Your task to perform on an android device: check google app version Image 0: 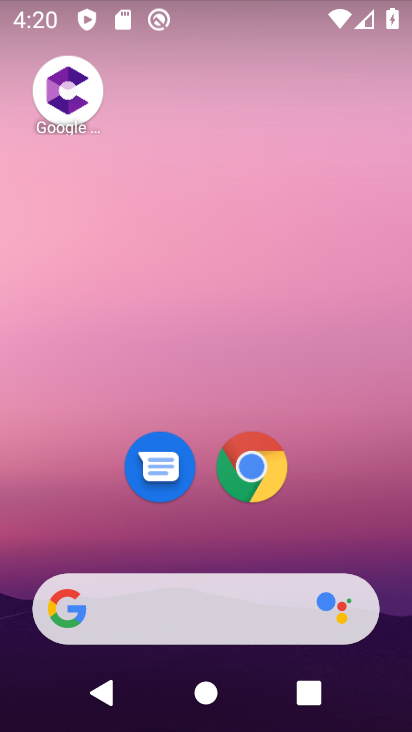
Step 0: click (249, 468)
Your task to perform on an android device: check google app version Image 1: 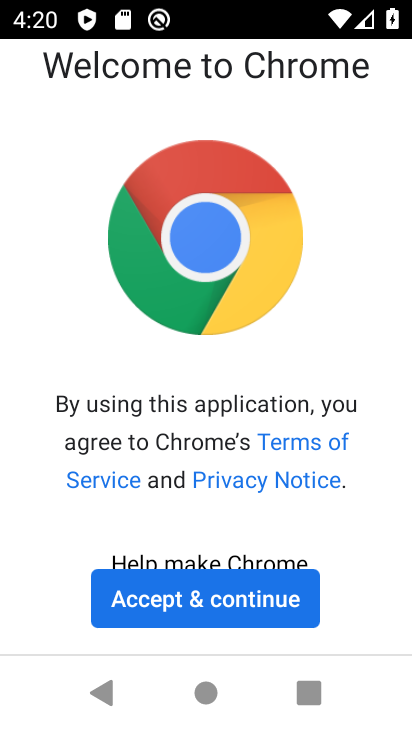
Step 1: click (189, 603)
Your task to perform on an android device: check google app version Image 2: 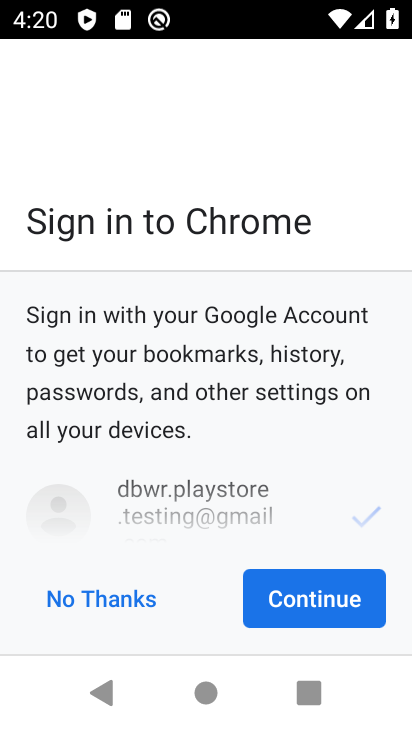
Step 2: click (317, 594)
Your task to perform on an android device: check google app version Image 3: 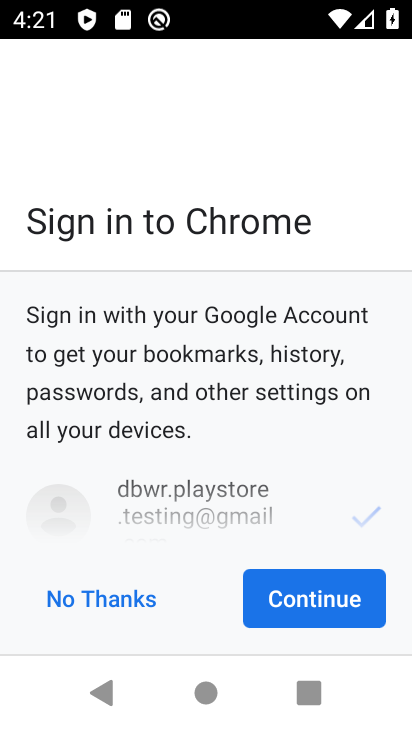
Step 3: click (319, 595)
Your task to perform on an android device: check google app version Image 4: 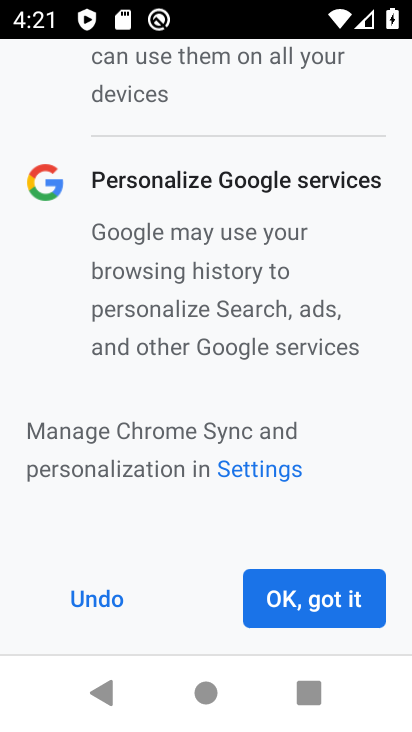
Step 4: press home button
Your task to perform on an android device: check google app version Image 5: 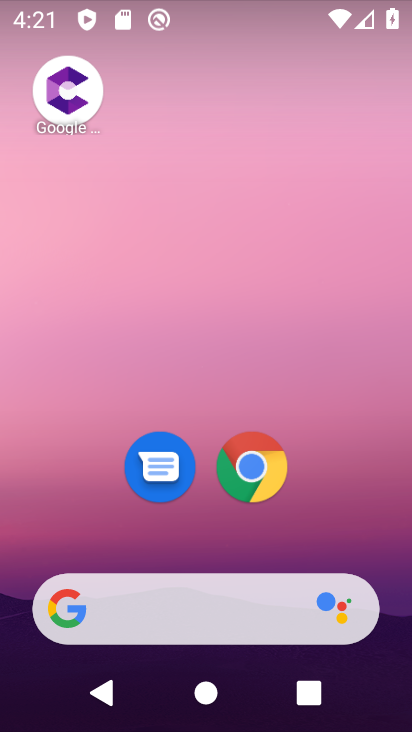
Step 5: drag from (398, 644) to (375, 197)
Your task to perform on an android device: check google app version Image 6: 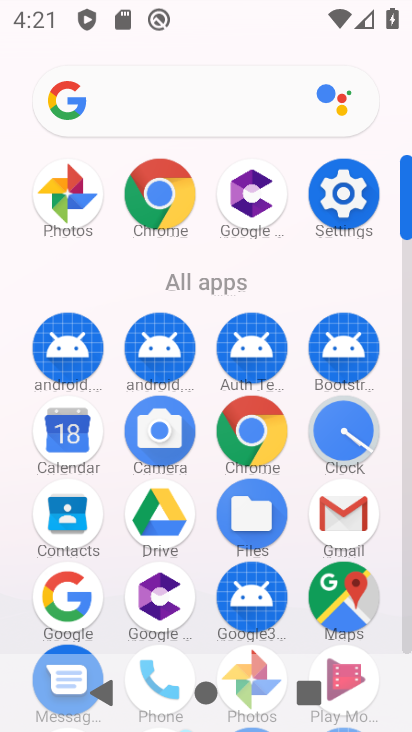
Step 6: click (68, 610)
Your task to perform on an android device: check google app version Image 7: 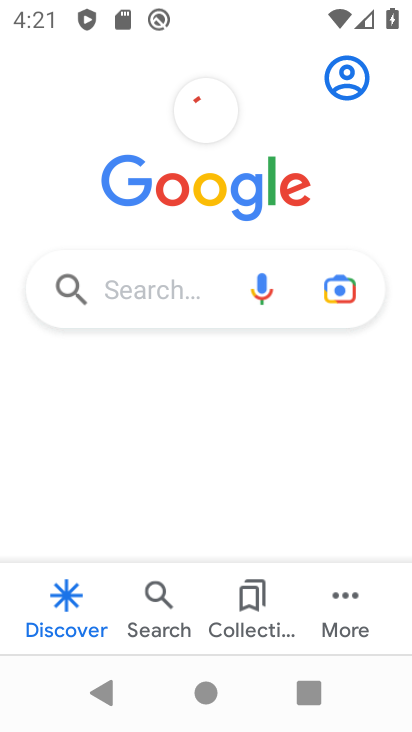
Step 7: click (356, 621)
Your task to perform on an android device: check google app version Image 8: 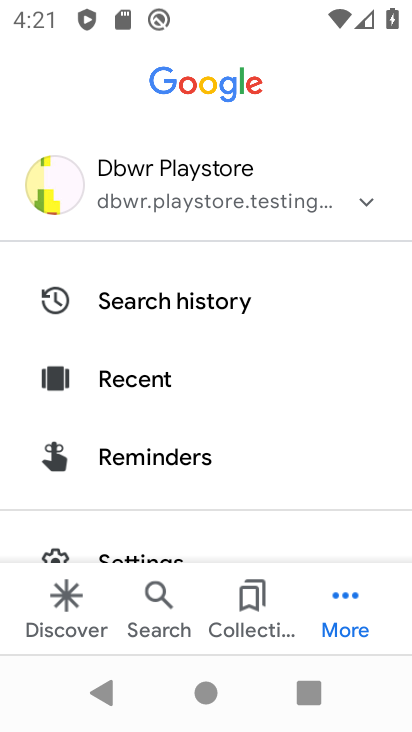
Step 8: click (111, 553)
Your task to perform on an android device: check google app version Image 9: 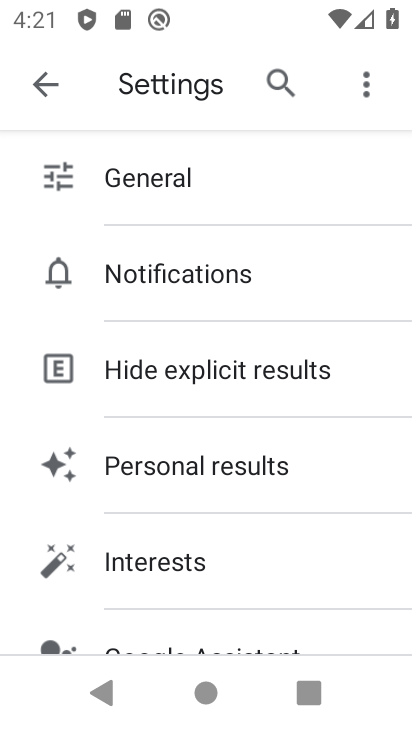
Step 9: drag from (295, 617) to (281, 400)
Your task to perform on an android device: check google app version Image 10: 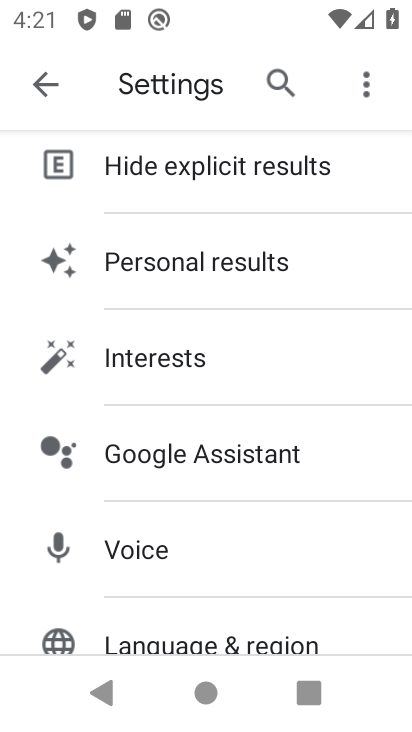
Step 10: drag from (246, 631) to (254, 419)
Your task to perform on an android device: check google app version Image 11: 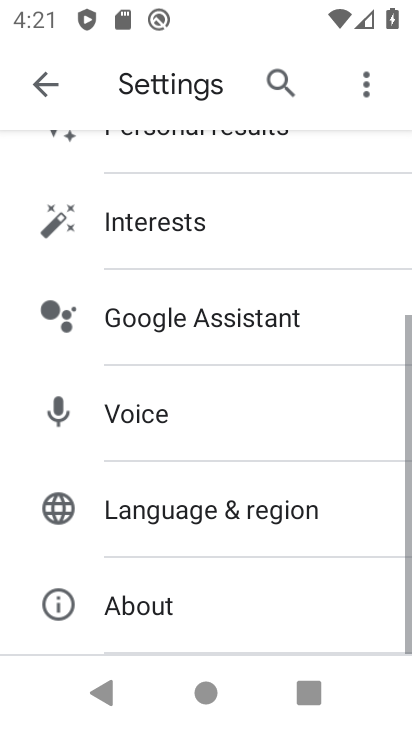
Step 11: click (111, 614)
Your task to perform on an android device: check google app version Image 12: 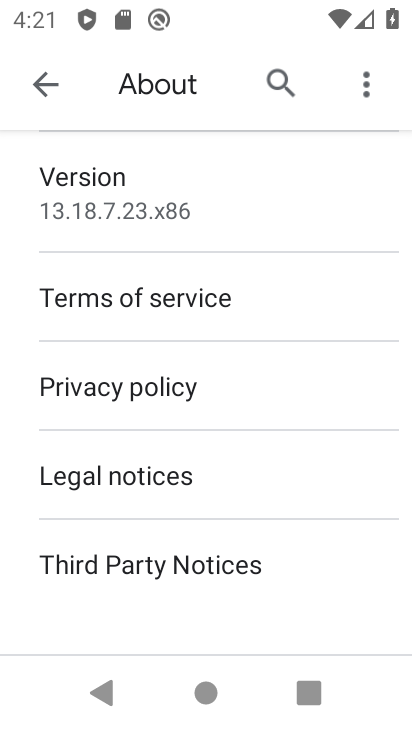
Step 12: click (92, 191)
Your task to perform on an android device: check google app version Image 13: 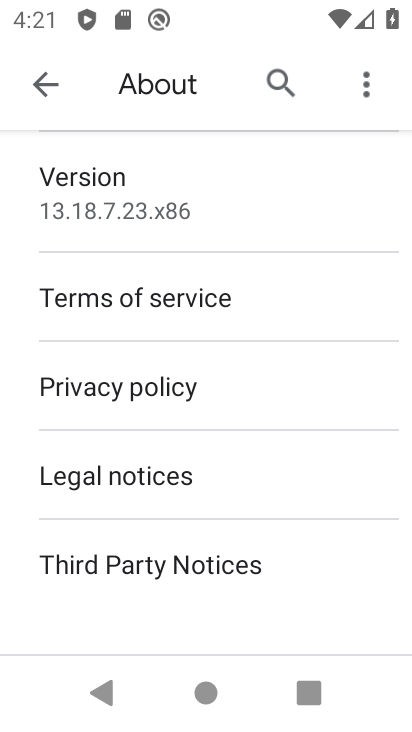
Step 13: task complete